Your task to perform on an android device: change your default location settings in chrome Image 0: 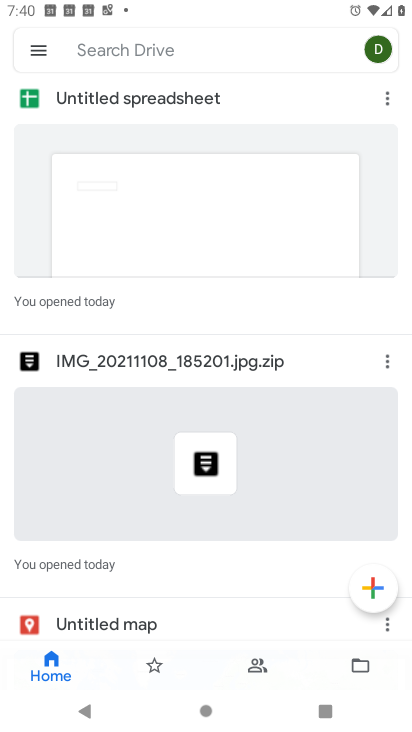
Step 0: press home button
Your task to perform on an android device: change your default location settings in chrome Image 1: 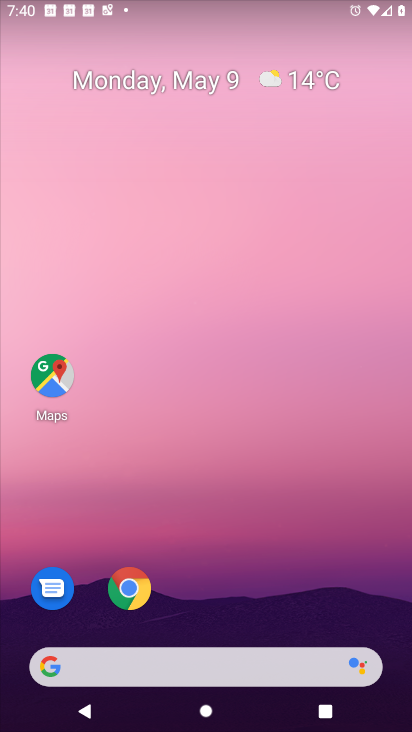
Step 1: drag from (343, 609) to (201, 23)
Your task to perform on an android device: change your default location settings in chrome Image 2: 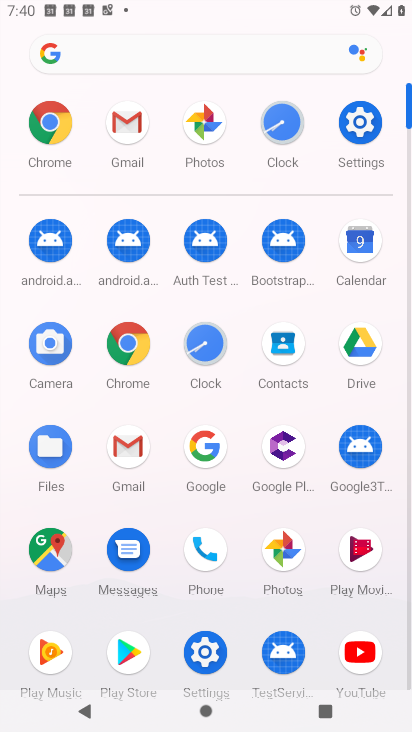
Step 2: click (135, 336)
Your task to perform on an android device: change your default location settings in chrome Image 3: 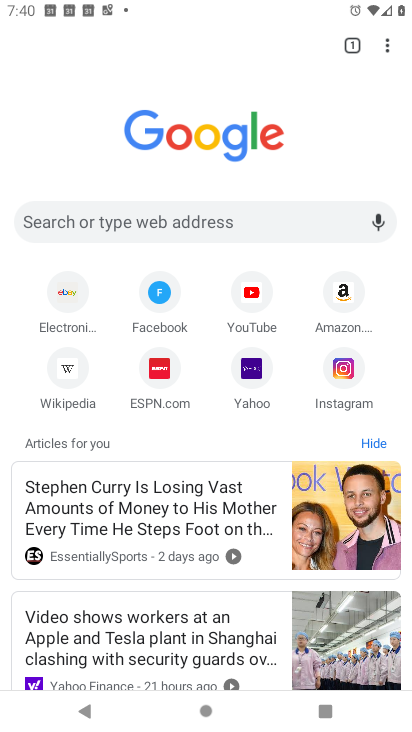
Step 3: click (381, 49)
Your task to perform on an android device: change your default location settings in chrome Image 4: 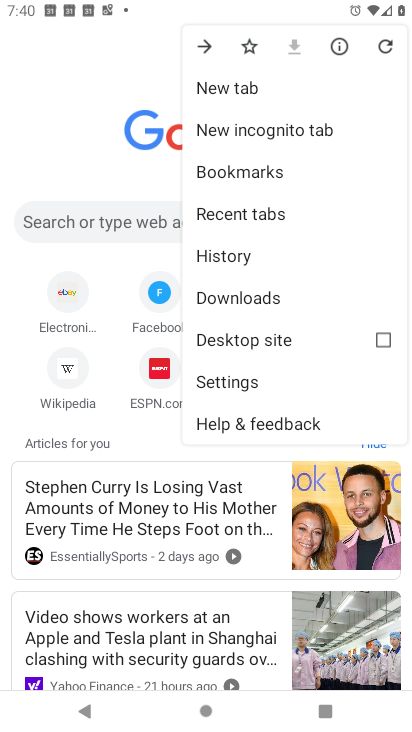
Step 4: click (256, 374)
Your task to perform on an android device: change your default location settings in chrome Image 5: 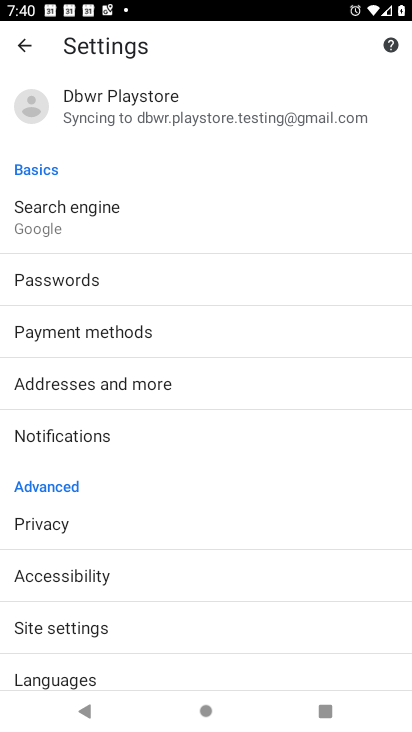
Step 5: click (187, 226)
Your task to perform on an android device: change your default location settings in chrome Image 6: 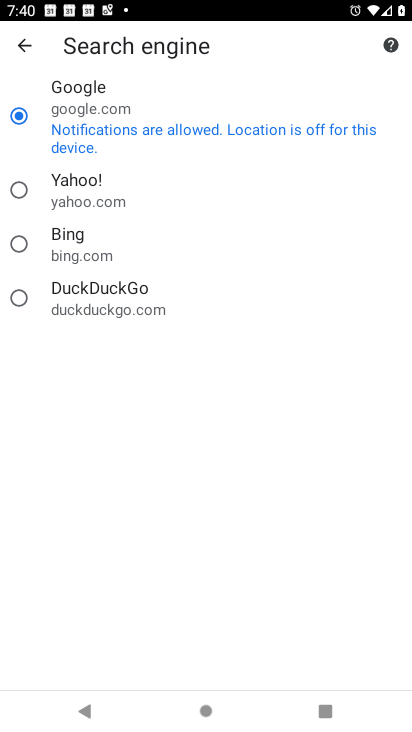
Step 6: click (51, 199)
Your task to perform on an android device: change your default location settings in chrome Image 7: 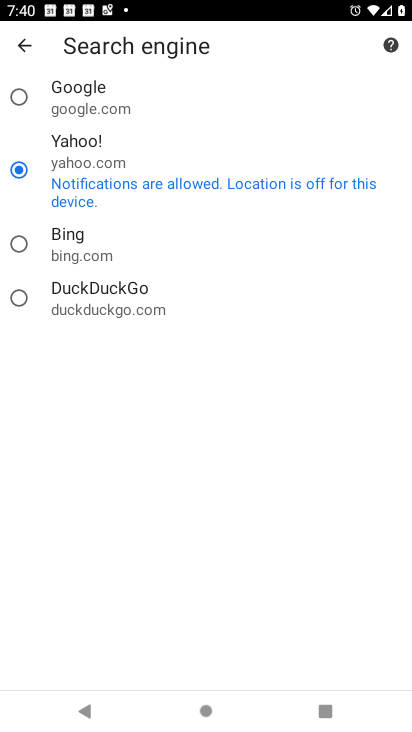
Step 7: task complete